Your task to perform on an android device: Open Google Chrome Image 0: 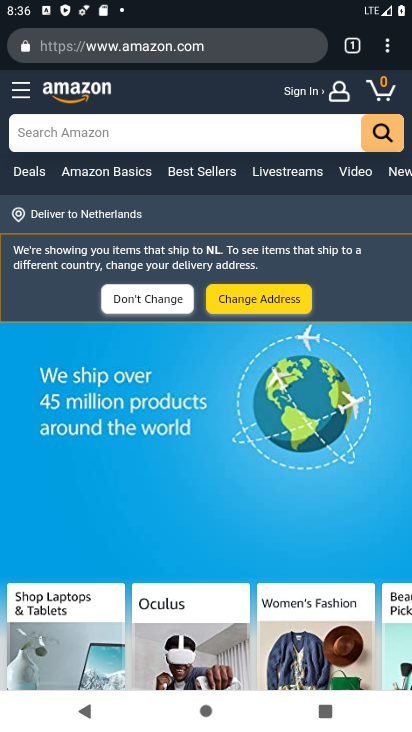
Step 0: press home button
Your task to perform on an android device: Open Google Chrome Image 1: 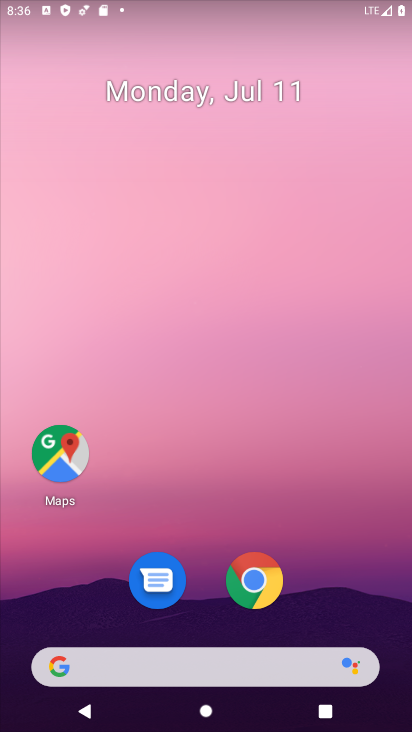
Step 1: click (262, 577)
Your task to perform on an android device: Open Google Chrome Image 2: 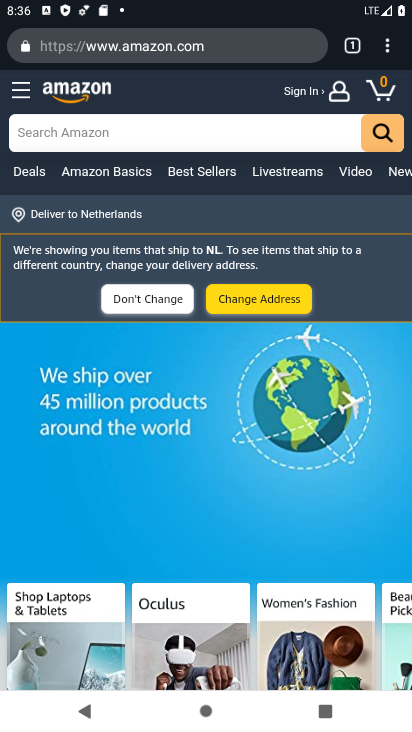
Step 2: click (384, 56)
Your task to perform on an android device: Open Google Chrome Image 3: 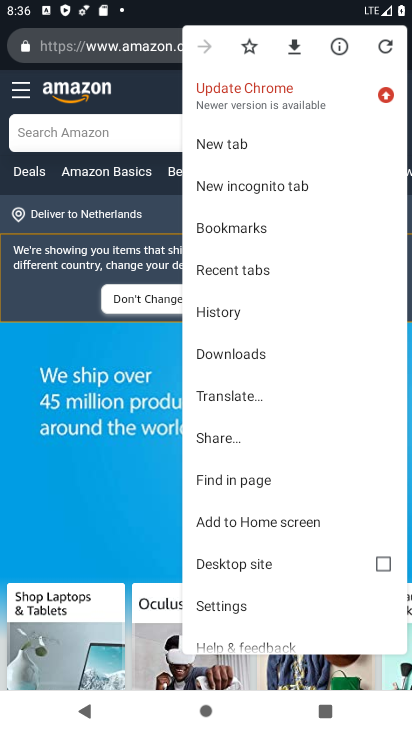
Step 3: click (272, 139)
Your task to perform on an android device: Open Google Chrome Image 4: 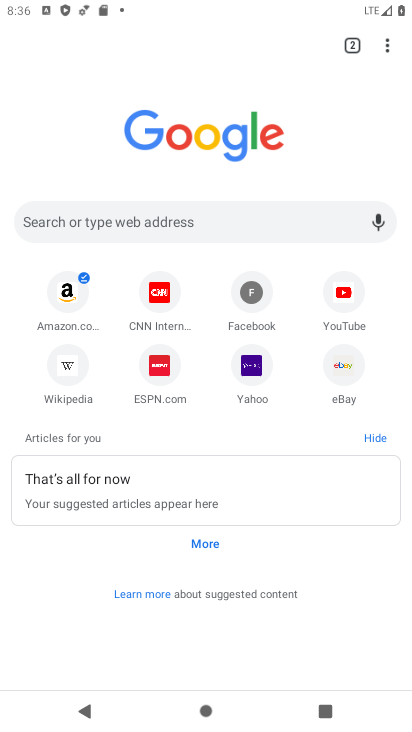
Step 4: task complete